Your task to perform on an android device: change the upload size in google photos Image 0: 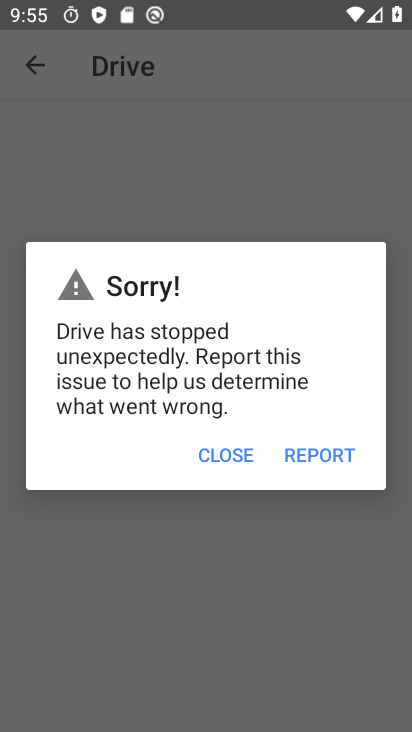
Step 0: press home button
Your task to perform on an android device: change the upload size in google photos Image 1: 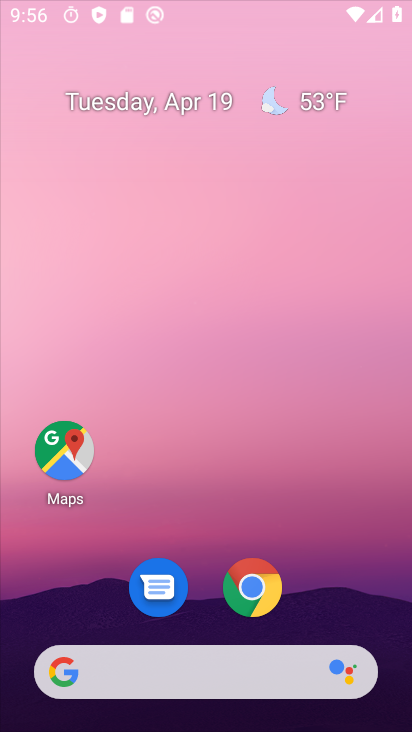
Step 1: click (316, 82)
Your task to perform on an android device: change the upload size in google photos Image 2: 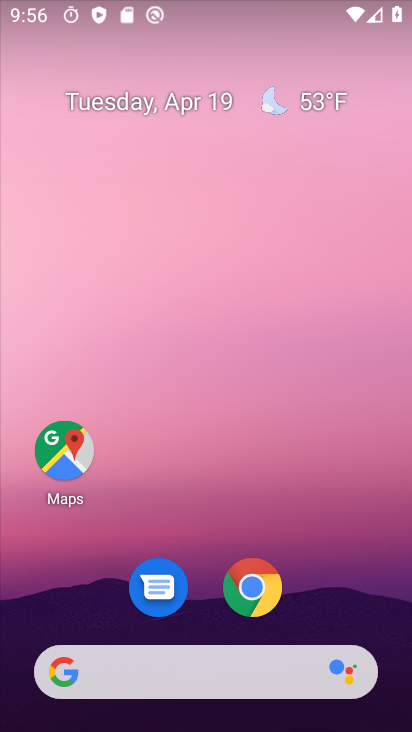
Step 2: drag from (360, 597) to (3, 252)
Your task to perform on an android device: change the upload size in google photos Image 3: 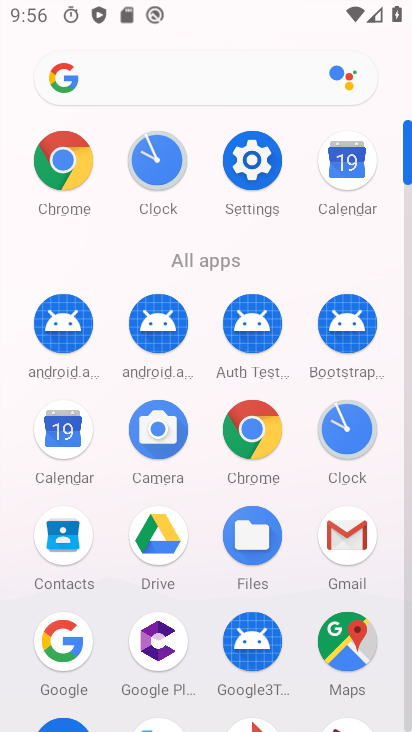
Step 3: click (255, 148)
Your task to perform on an android device: change the upload size in google photos Image 4: 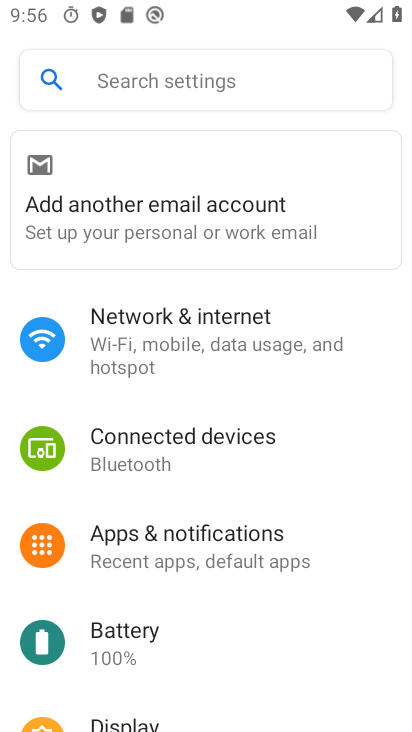
Step 4: drag from (207, 671) to (294, 266)
Your task to perform on an android device: change the upload size in google photos Image 5: 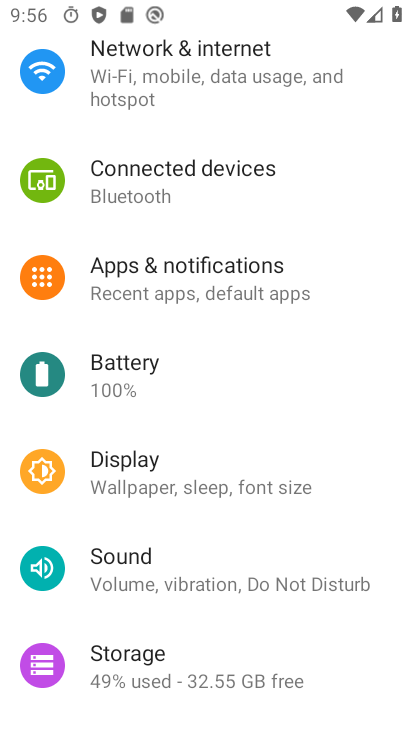
Step 5: click (220, 482)
Your task to perform on an android device: change the upload size in google photos Image 6: 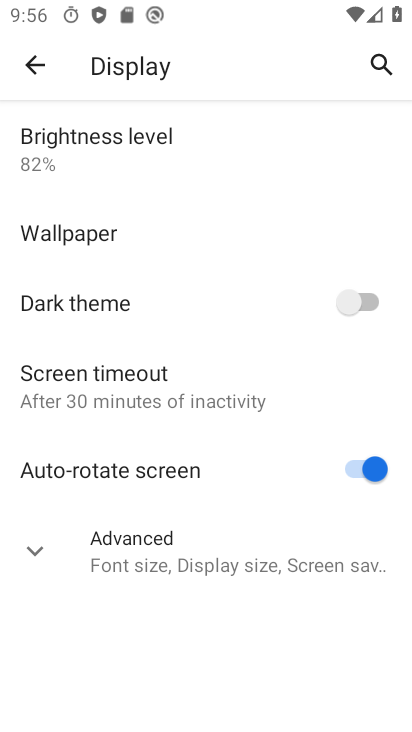
Step 6: click (189, 559)
Your task to perform on an android device: change the upload size in google photos Image 7: 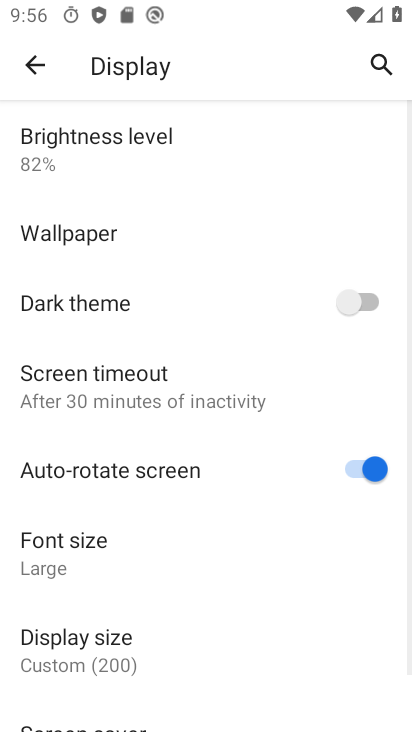
Step 7: click (62, 562)
Your task to perform on an android device: change the upload size in google photos Image 8: 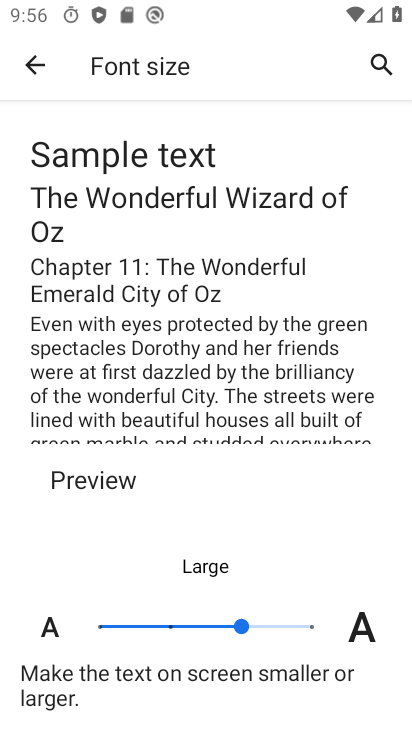
Step 8: click (208, 626)
Your task to perform on an android device: change the upload size in google photos Image 9: 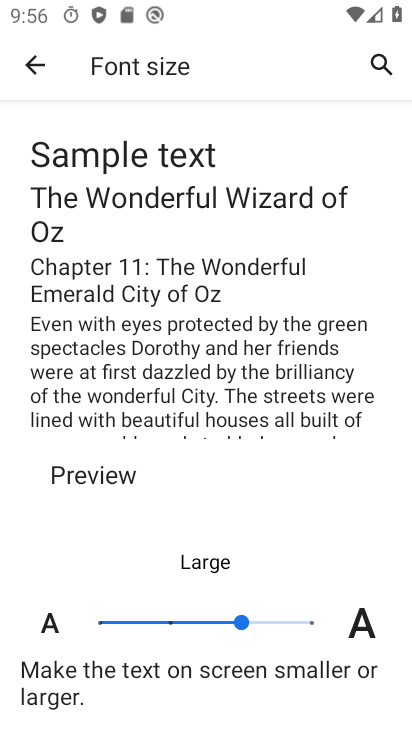
Step 9: click (232, 620)
Your task to perform on an android device: change the upload size in google photos Image 10: 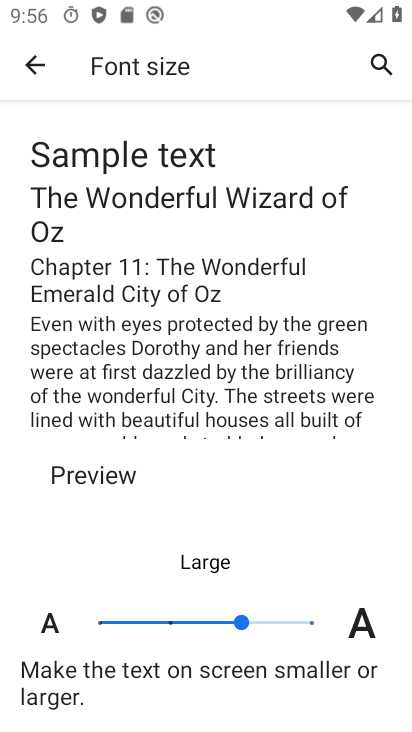
Step 10: click (215, 620)
Your task to perform on an android device: change the upload size in google photos Image 11: 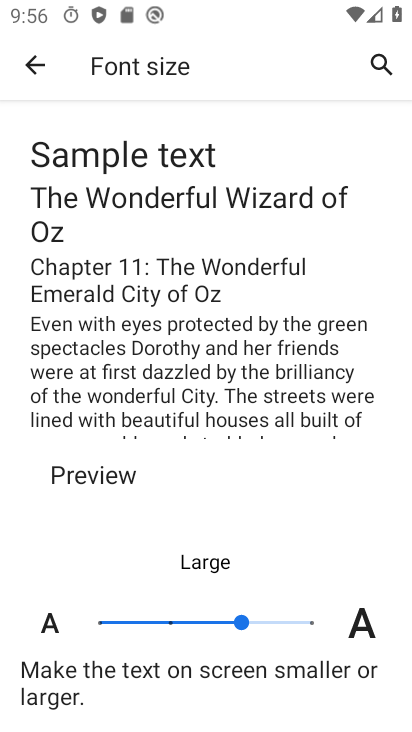
Step 11: task complete